Your task to perform on an android device: toggle location history Image 0: 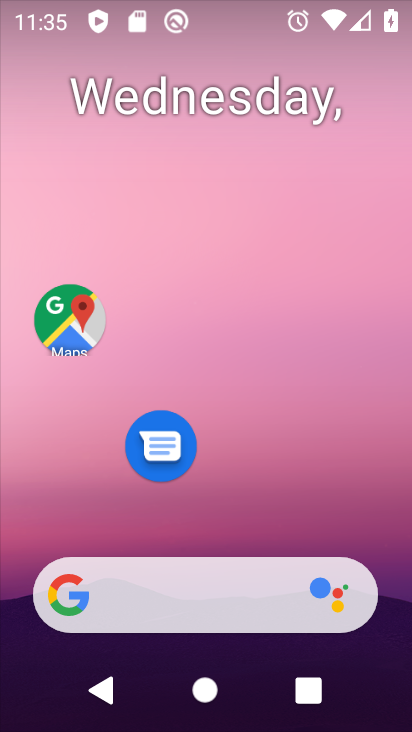
Step 0: drag from (272, 489) to (189, 123)
Your task to perform on an android device: toggle location history Image 1: 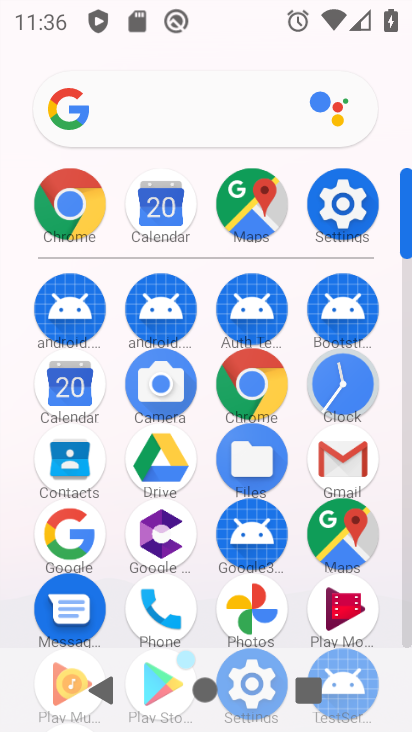
Step 1: click (346, 208)
Your task to perform on an android device: toggle location history Image 2: 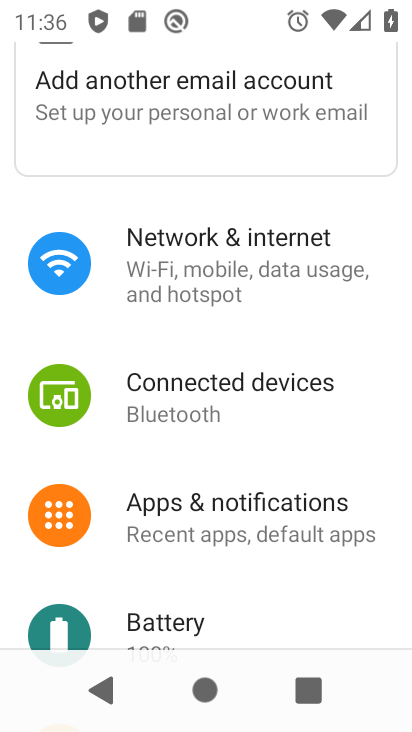
Step 2: drag from (326, 597) to (268, 236)
Your task to perform on an android device: toggle location history Image 3: 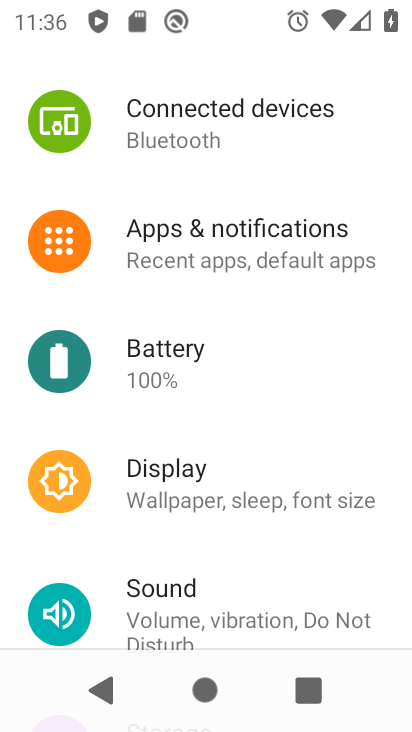
Step 3: drag from (280, 573) to (242, 227)
Your task to perform on an android device: toggle location history Image 4: 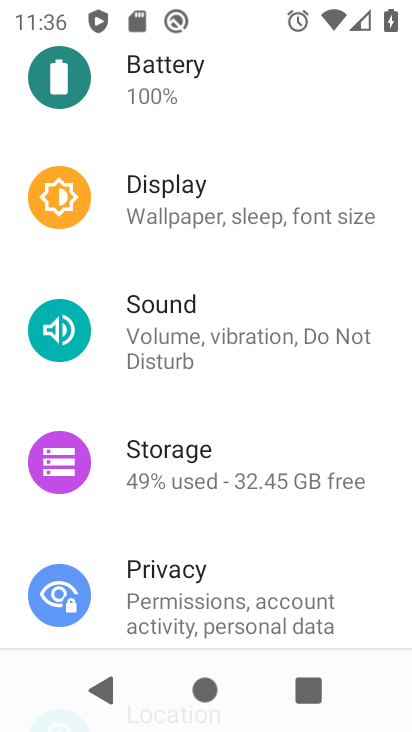
Step 4: drag from (279, 459) to (208, 150)
Your task to perform on an android device: toggle location history Image 5: 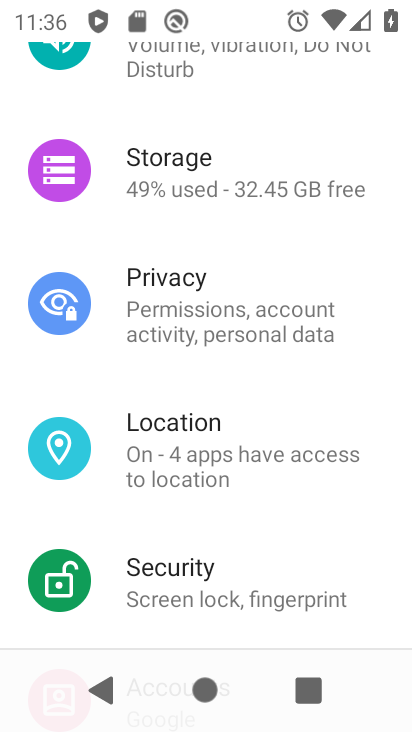
Step 5: click (170, 468)
Your task to perform on an android device: toggle location history Image 6: 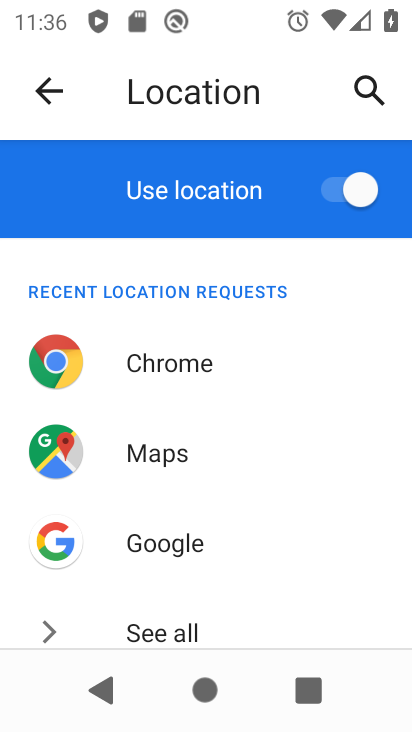
Step 6: drag from (264, 606) to (223, 282)
Your task to perform on an android device: toggle location history Image 7: 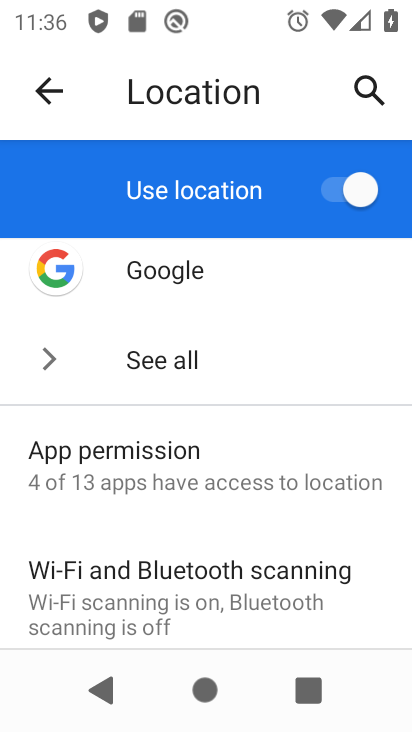
Step 7: drag from (167, 616) to (148, 216)
Your task to perform on an android device: toggle location history Image 8: 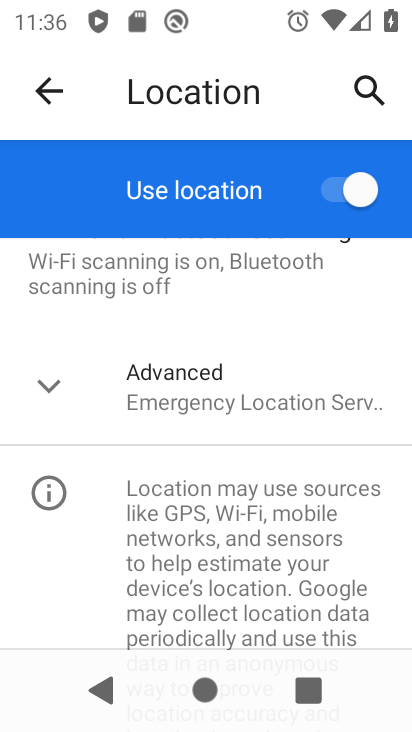
Step 8: click (165, 393)
Your task to perform on an android device: toggle location history Image 9: 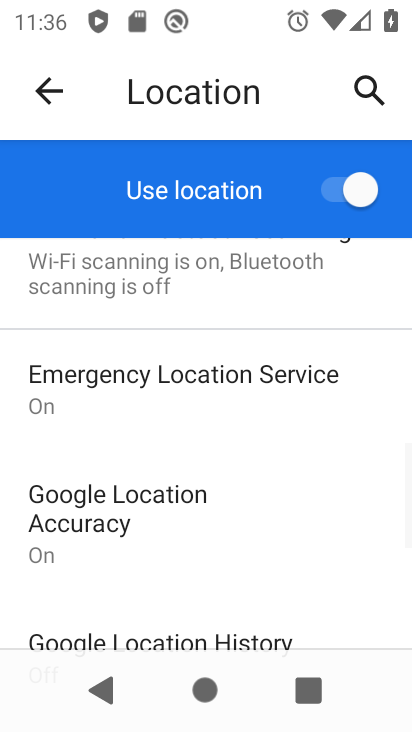
Step 9: drag from (208, 534) to (188, 381)
Your task to perform on an android device: toggle location history Image 10: 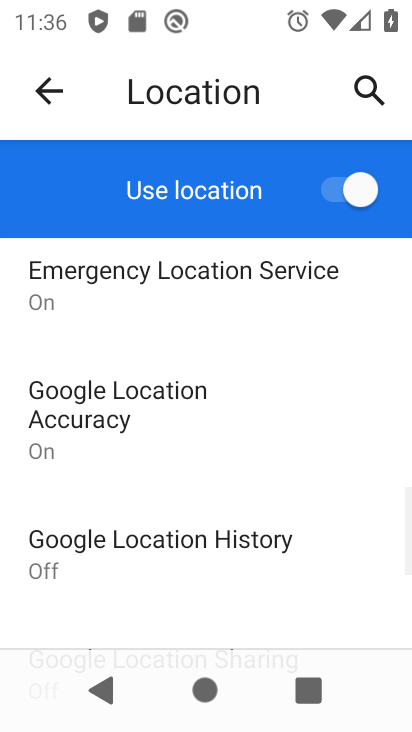
Step 10: click (132, 530)
Your task to perform on an android device: toggle location history Image 11: 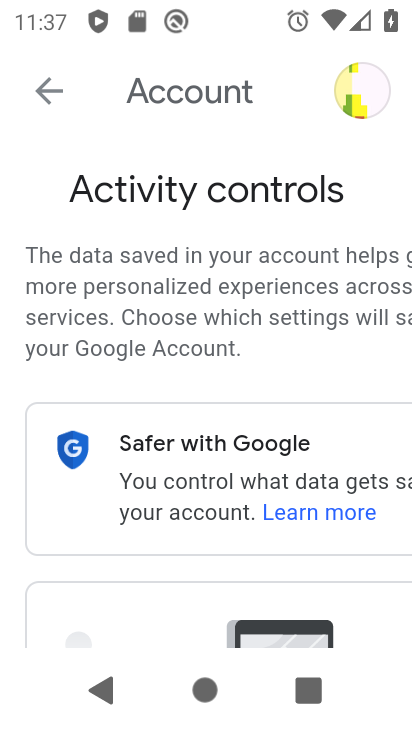
Step 11: drag from (164, 630) to (126, 204)
Your task to perform on an android device: toggle location history Image 12: 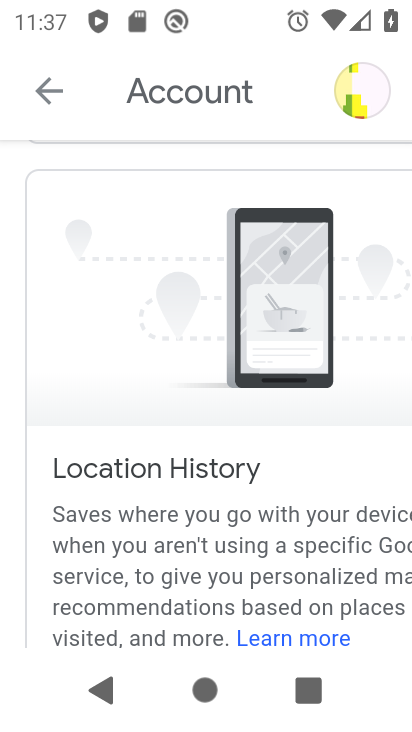
Step 12: drag from (161, 548) to (161, 121)
Your task to perform on an android device: toggle location history Image 13: 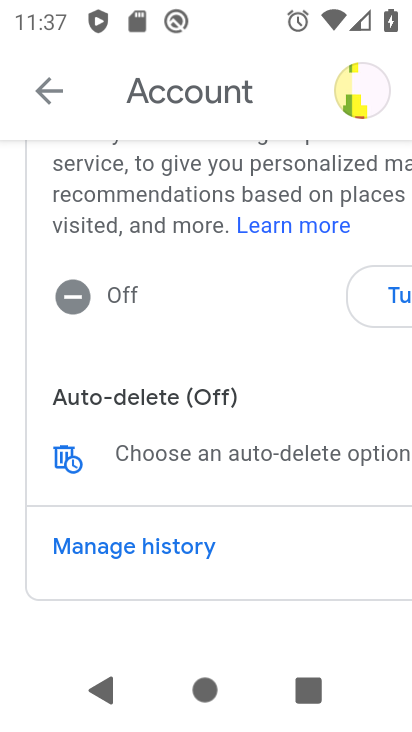
Step 13: click (375, 302)
Your task to perform on an android device: toggle location history Image 14: 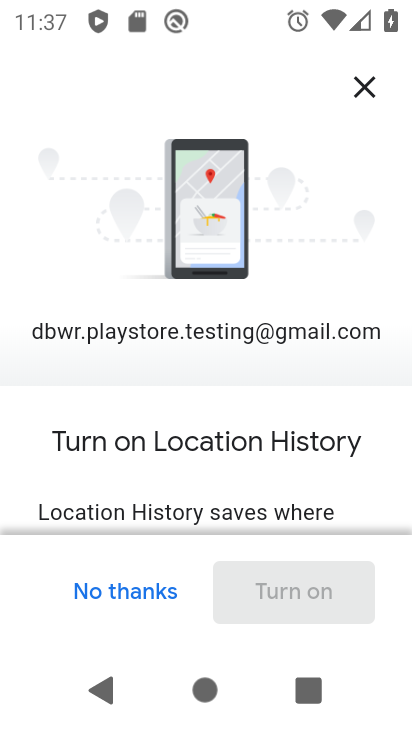
Step 14: drag from (281, 447) to (247, 104)
Your task to perform on an android device: toggle location history Image 15: 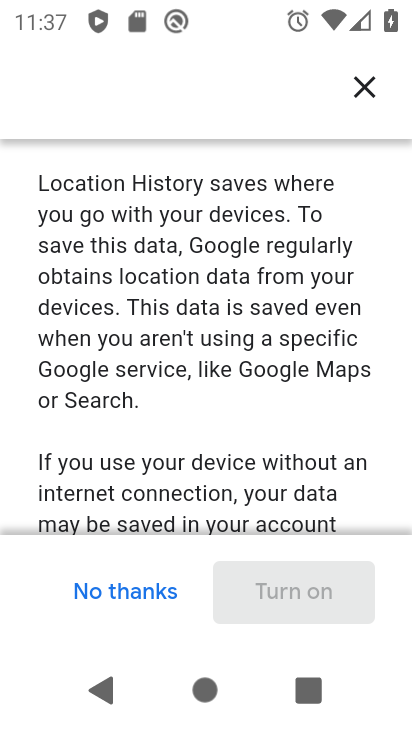
Step 15: drag from (245, 403) to (251, 91)
Your task to perform on an android device: toggle location history Image 16: 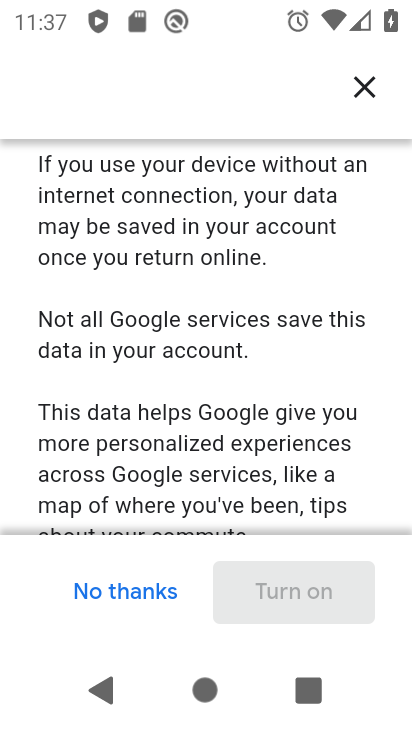
Step 16: drag from (225, 500) to (202, 173)
Your task to perform on an android device: toggle location history Image 17: 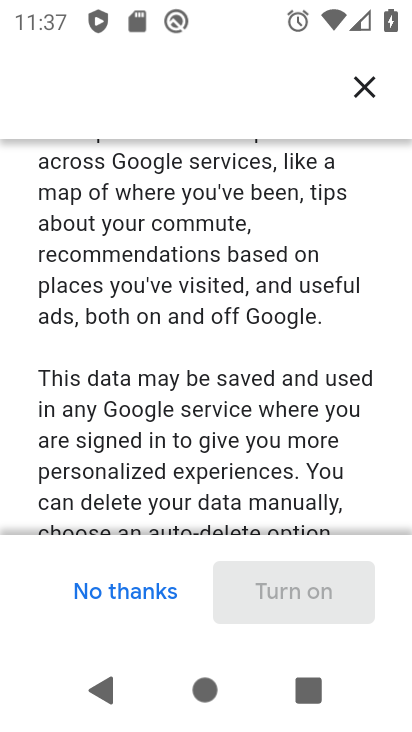
Step 17: drag from (238, 463) to (224, 89)
Your task to perform on an android device: toggle location history Image 18: 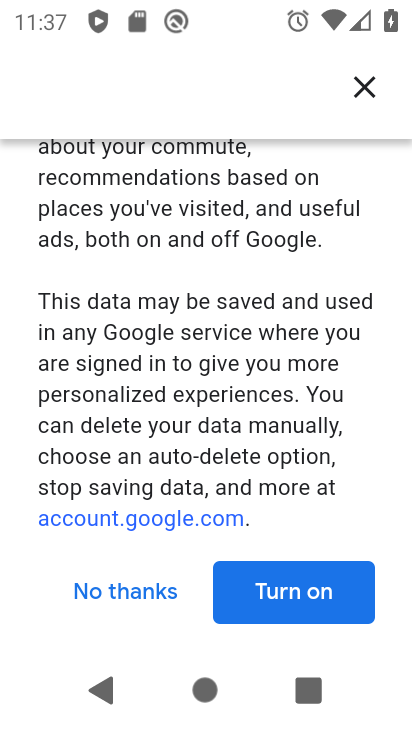
Step 18: click (288, 598)
Your task to perform on an android device: toggle location history Image 19: 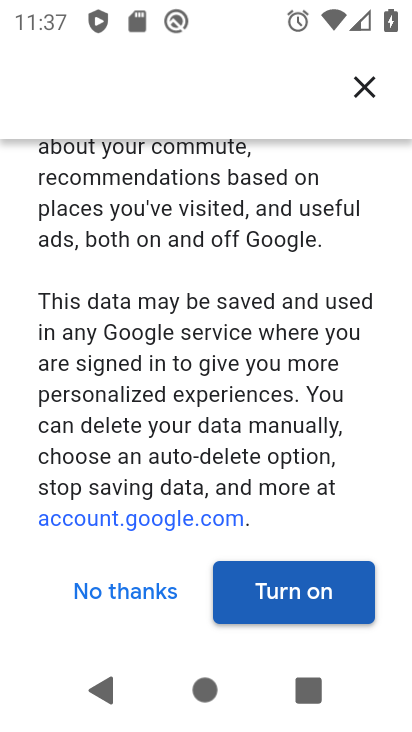
Step 19: click (281, 586)
Your task to perform on an android device: toggle location history Image 20: 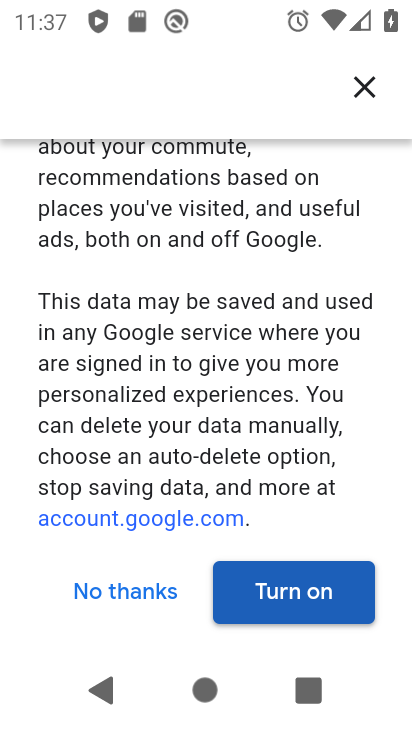
Step 20: click (278, 571)
Your task to perform on an android device: toggle location history Image 21: 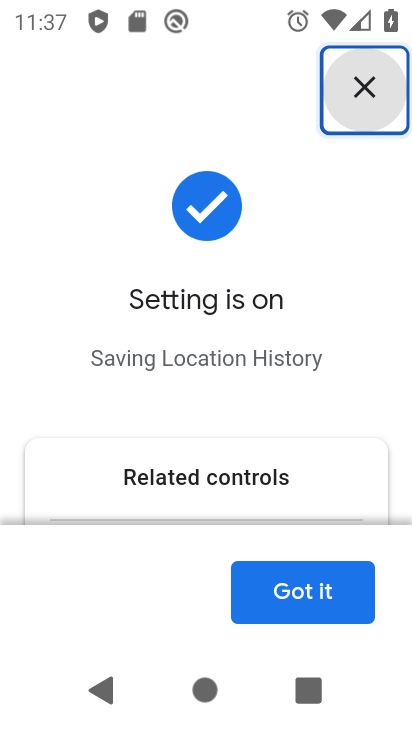
Step 21: click (277, 595)
Your task to perform on an android device: toggle location history Image 22: 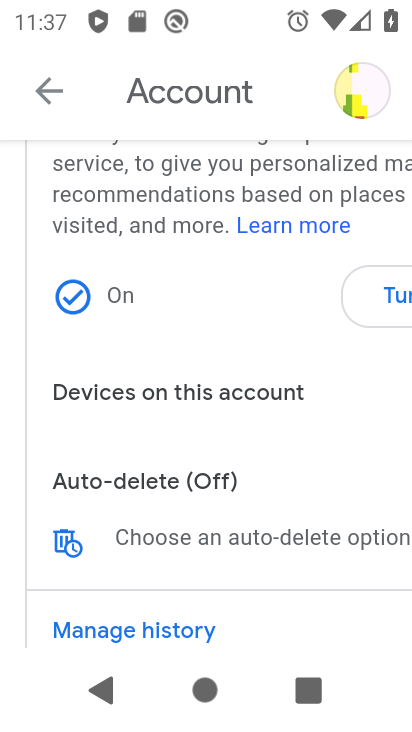
Step 22: task complete